Your task to perform on an android device: check storage Image 0: 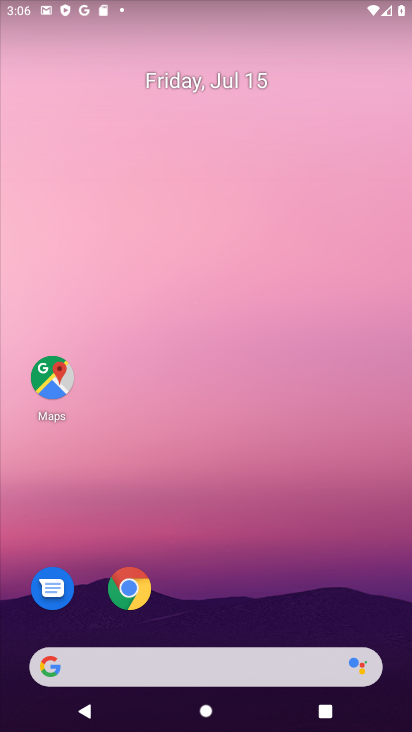
Step 0: drag from (344, 610) to (178, 95)
Your task to perform on an android device: check storage Image 1: 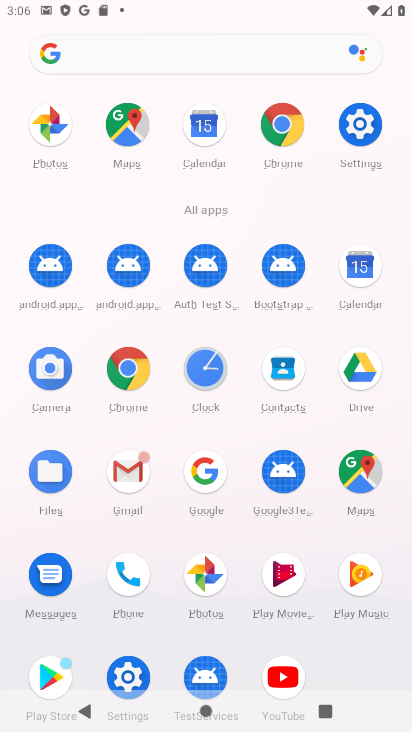
Step 1: click (368, 129)
Your task to perform on an android device: check storage Image 2: 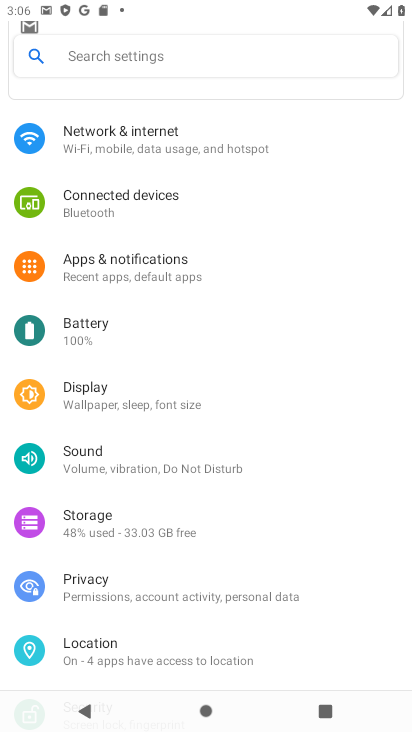
Step 2: click (164, 521)
Your task to perform on an android device: check storage Image 3: 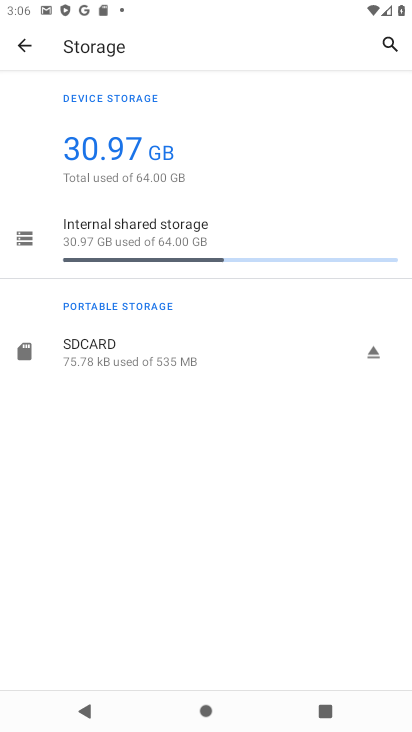
Step 3: task complete